Your task to perform on an android device: Search for pizza restaurants on Maps Image 0: 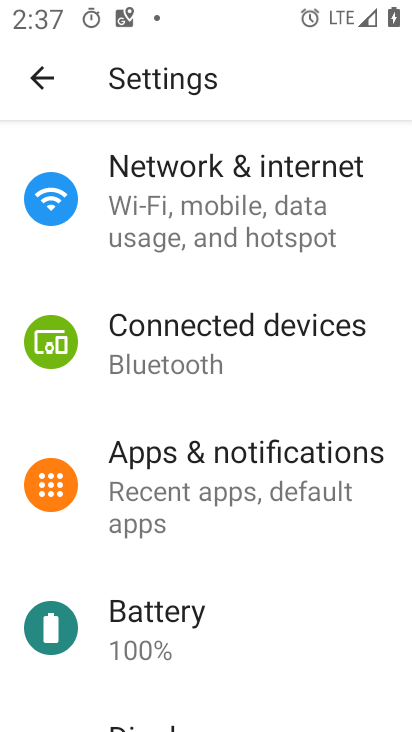
Step 0: press home button
Your task to perform on an android device: Search for pizza restaurants on Maps Image 1: 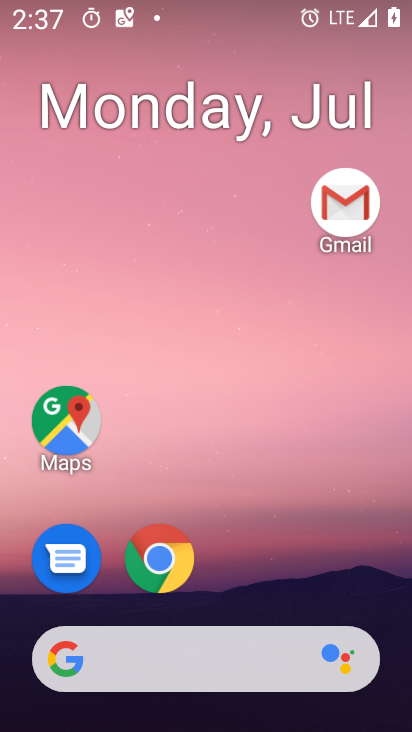
Step 1: drag from (319, 554) to (338, 105)
Your task to perform on an android device: Search for pizza restaurants on Maps Image 2: 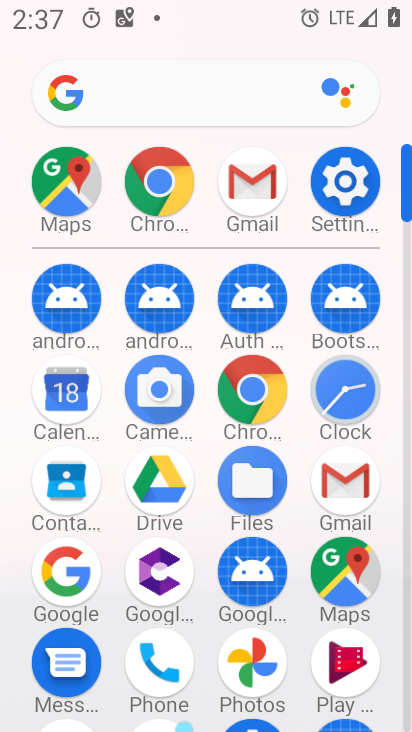
Step 2: drag from (392, 534) to (401, 288)
Your task to perform on an android device: Search for pizza restaurants on Maps Image 3: 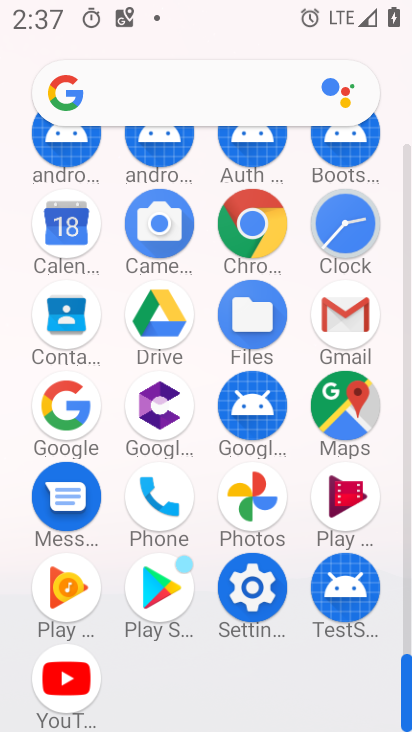
Step 3: click (352, 408)
Your task to perform on an android device: Search for pizza restaurants on Maps Image 4: 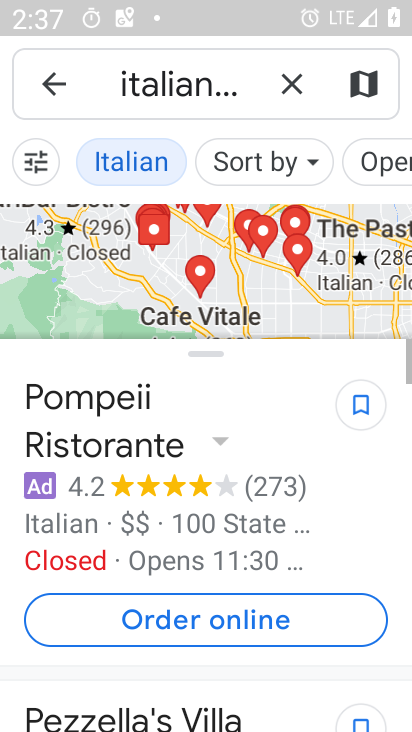
Step 4: press back button
Your task to perform on an android device: Search for pizza restaurants on Maps Image 5: 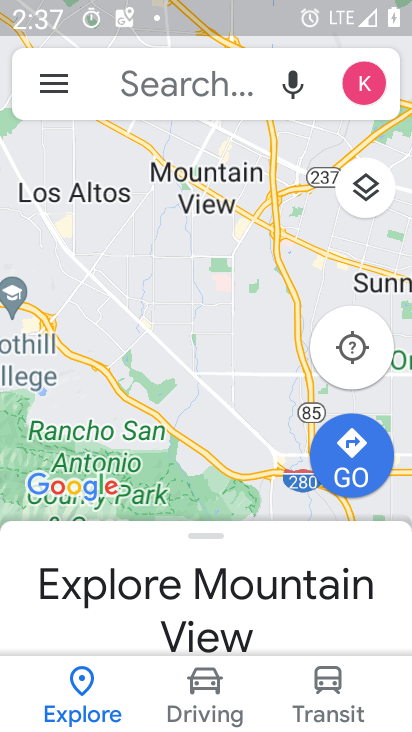
Step 5: click (223, 94)
Your task to perform on an android device: Search for pizza restaurants on Maps Image 6: 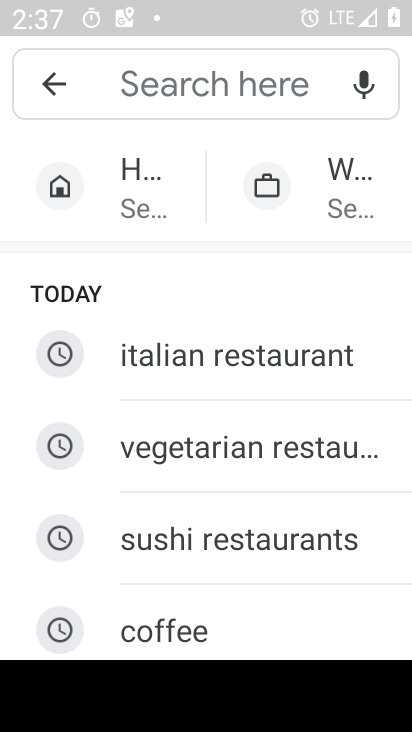
Step 6: type "pizza restaurants"
Your task to perform on an android device: Search for pizza restaurants on Maps Image 7: 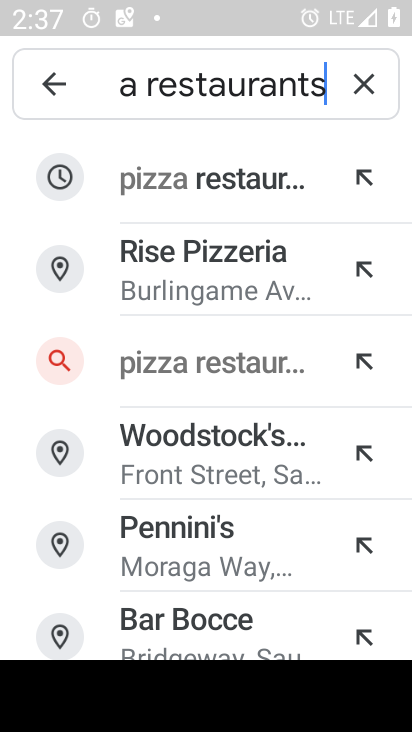
Step 7: click (223, 187)
Your task to perform on an android device: Search for pizza restaurants on Maps Image 8: 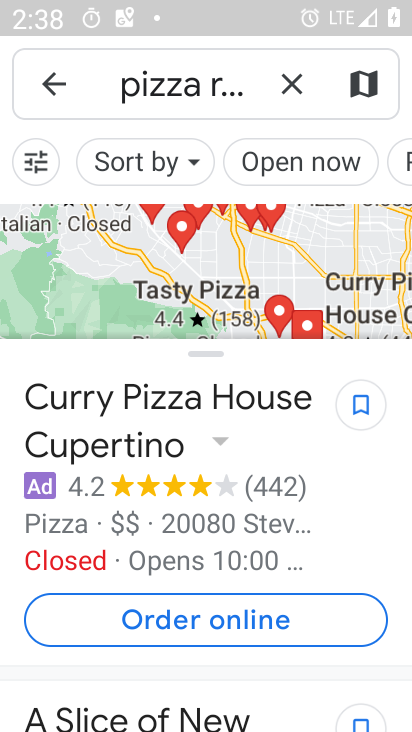
Step 8: task complete